Your task to perform on an android device: install app "Nova Launcher" Image 0: 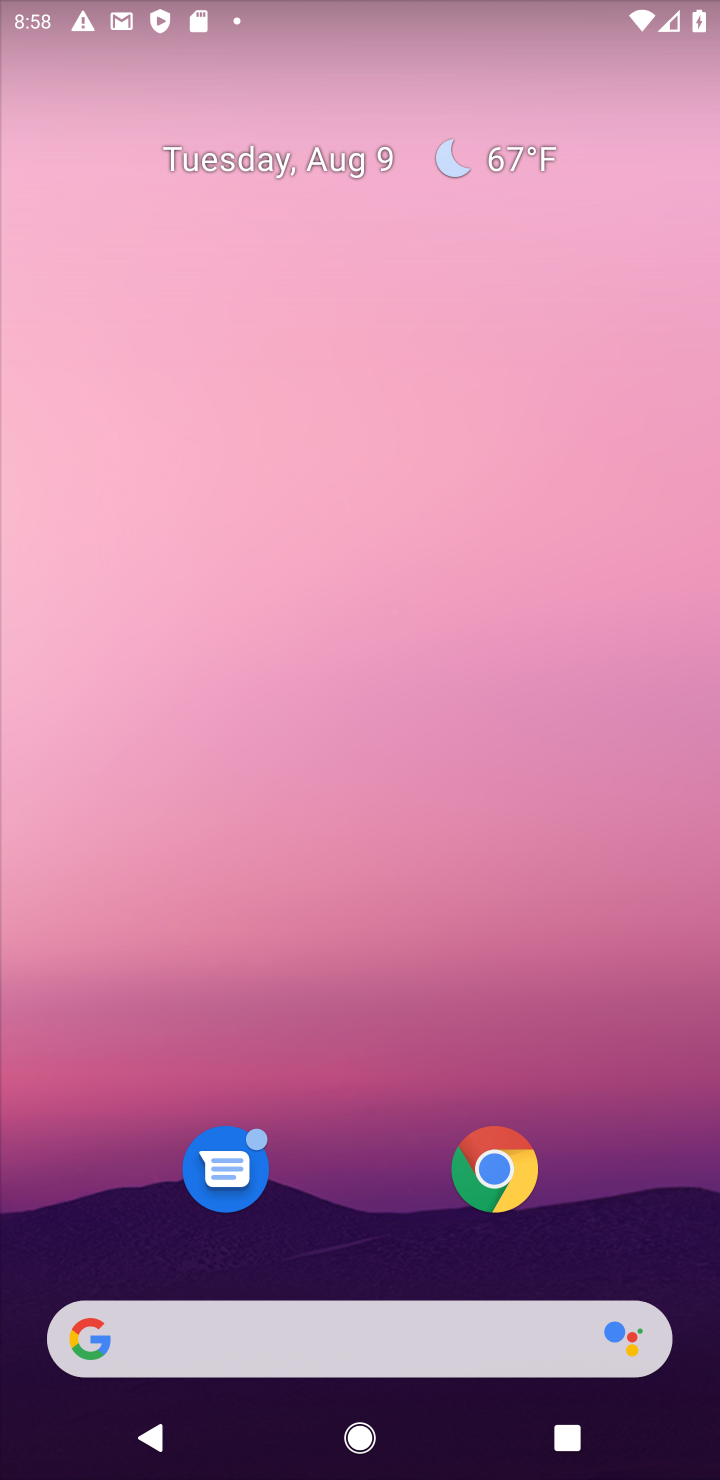
Step 0: drag from (397, 806) to (712, 861)
Your task to perform on an android device: install app "Nova Launcher" Image 1: 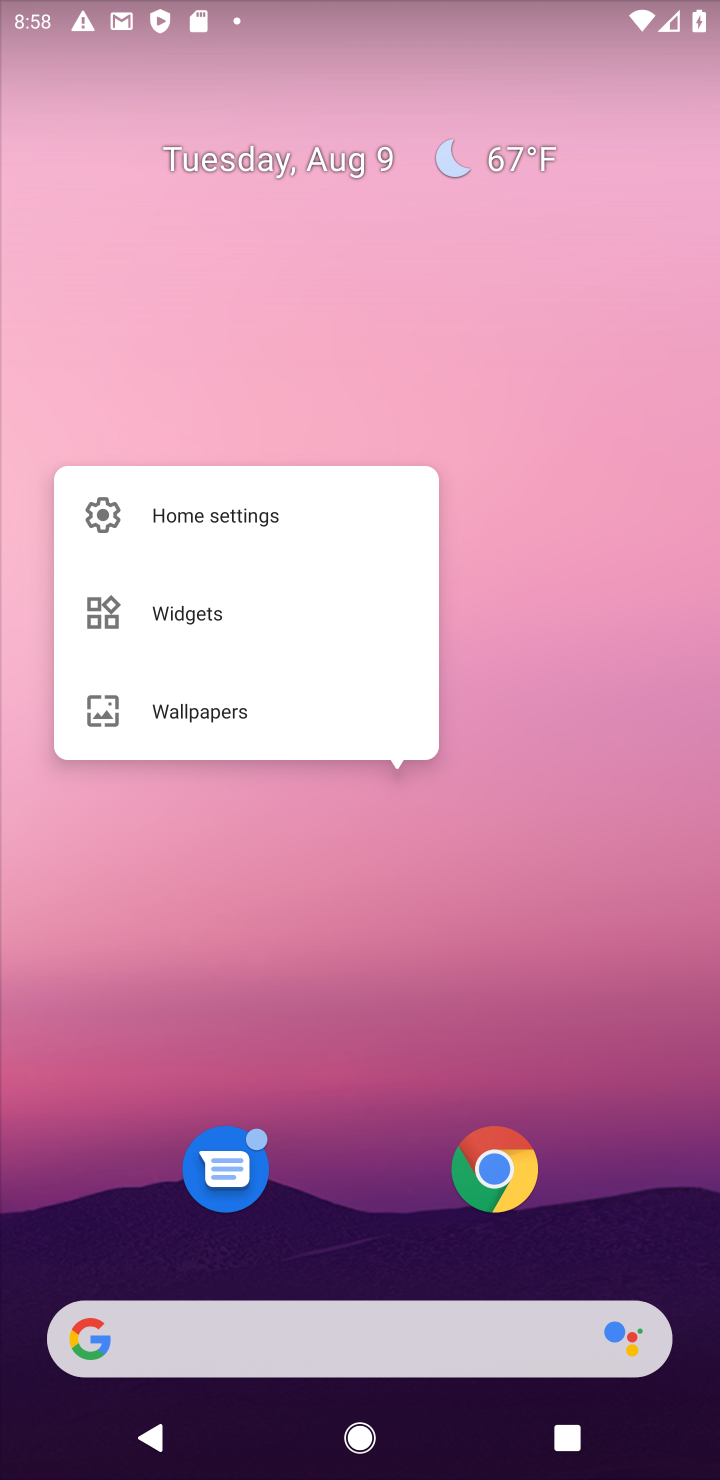
Step 1: click (623, 885)
Your task to perform on an android device: install app "Nova Launcher" Image 2: 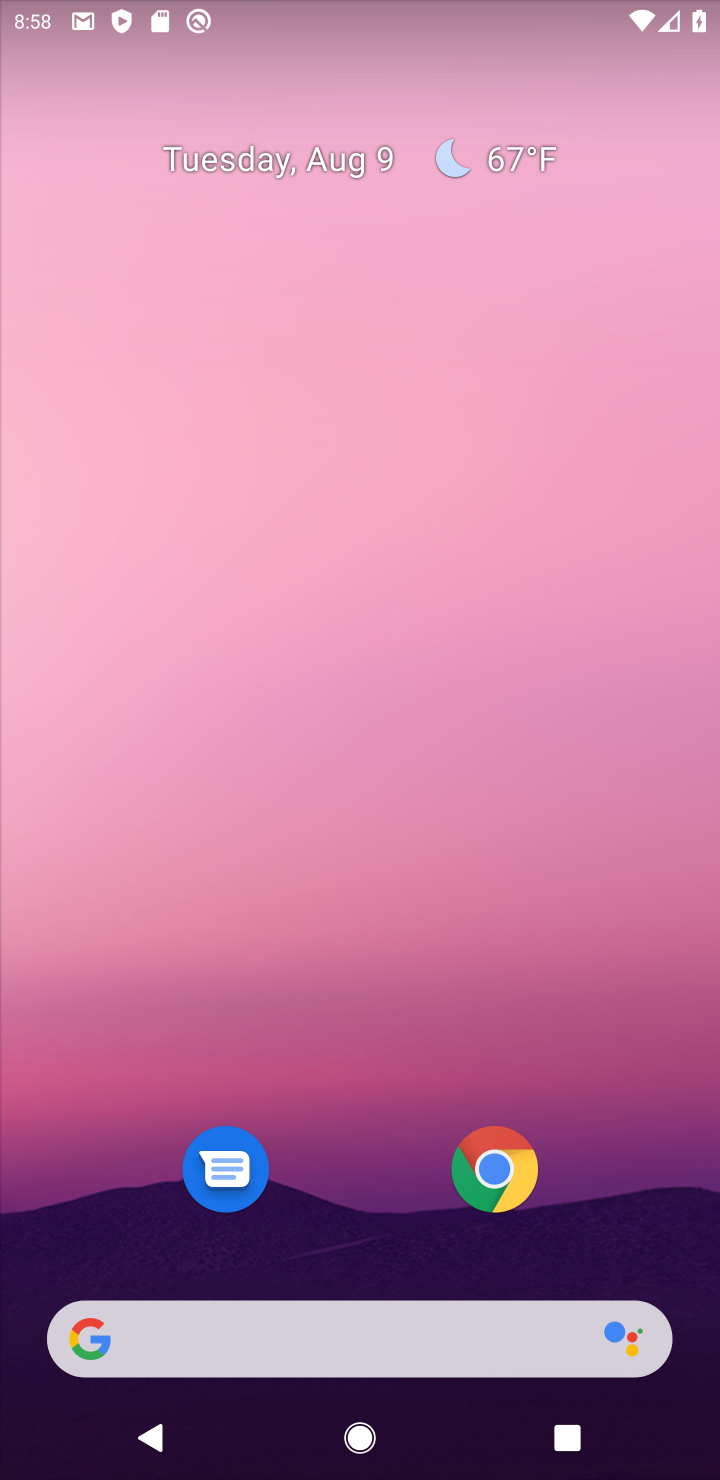
Step 2: drag from (600, 1164) to (572, 134)
Your task to perform on an android device: install app "Nova Launcher" Image 3: 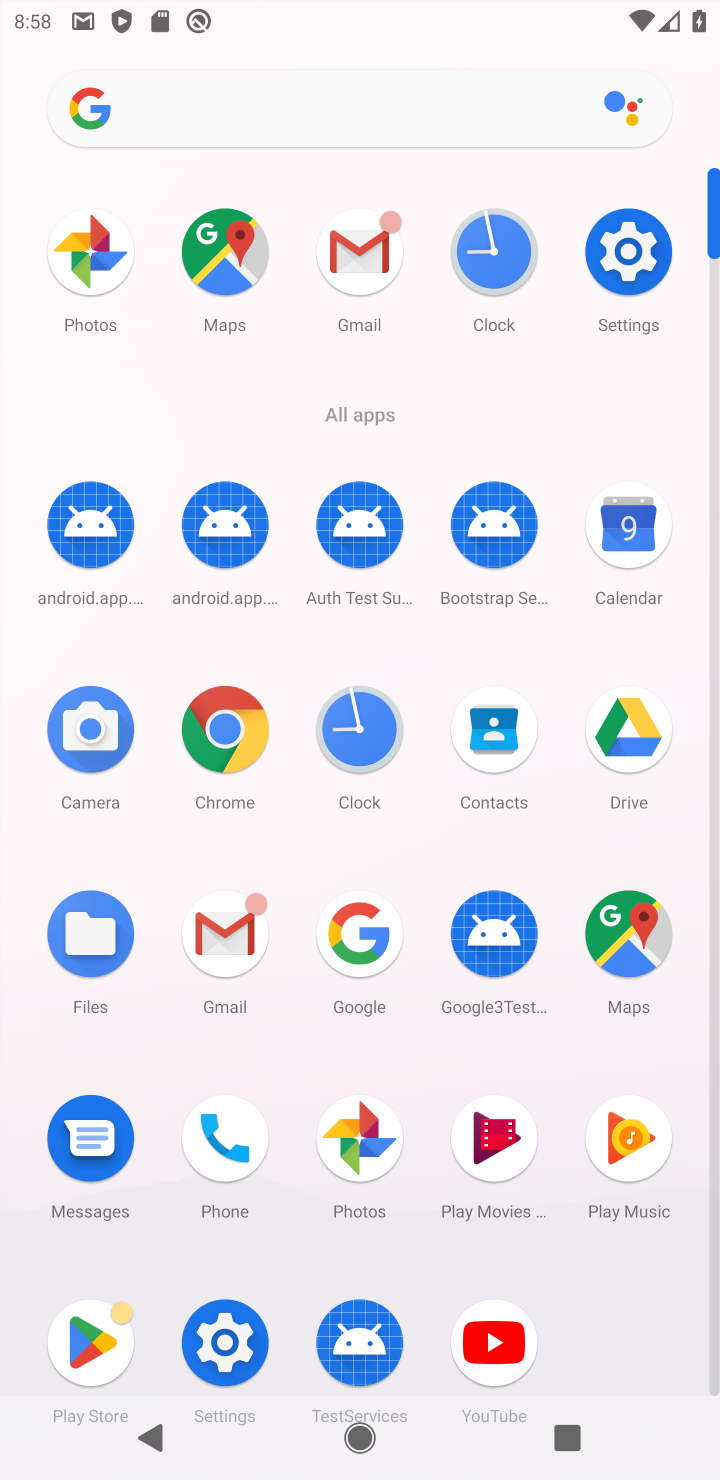
Step 3: click (92, 1350)
Your task to perform on an android device: install app "Nova Launcher" Image 4: 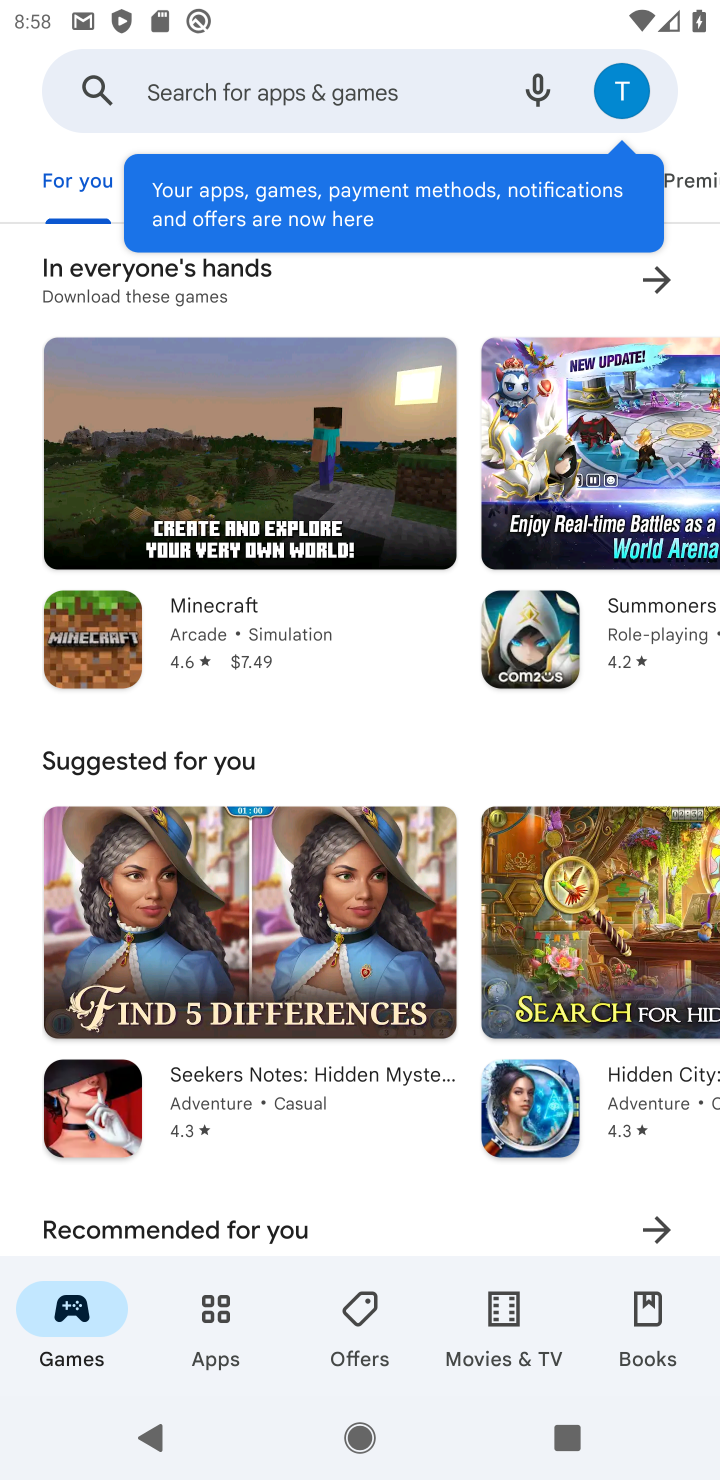
Step 4: click (348, 92)
Your task to perform on an android device: install app "Nova Launcher" Image 5: 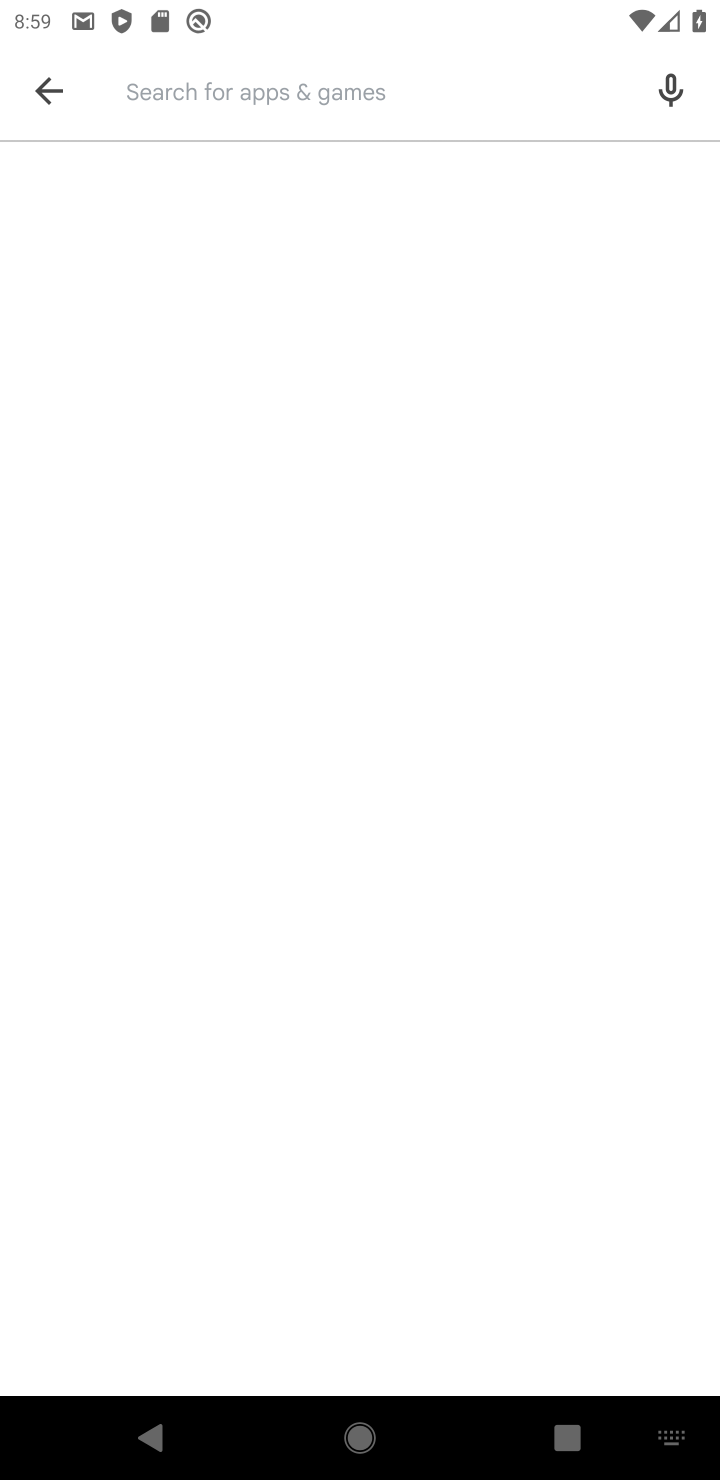
Step 5: type "nova launcher"
Your task to perform on an android device: install app "Nova Launcher" Image 6: 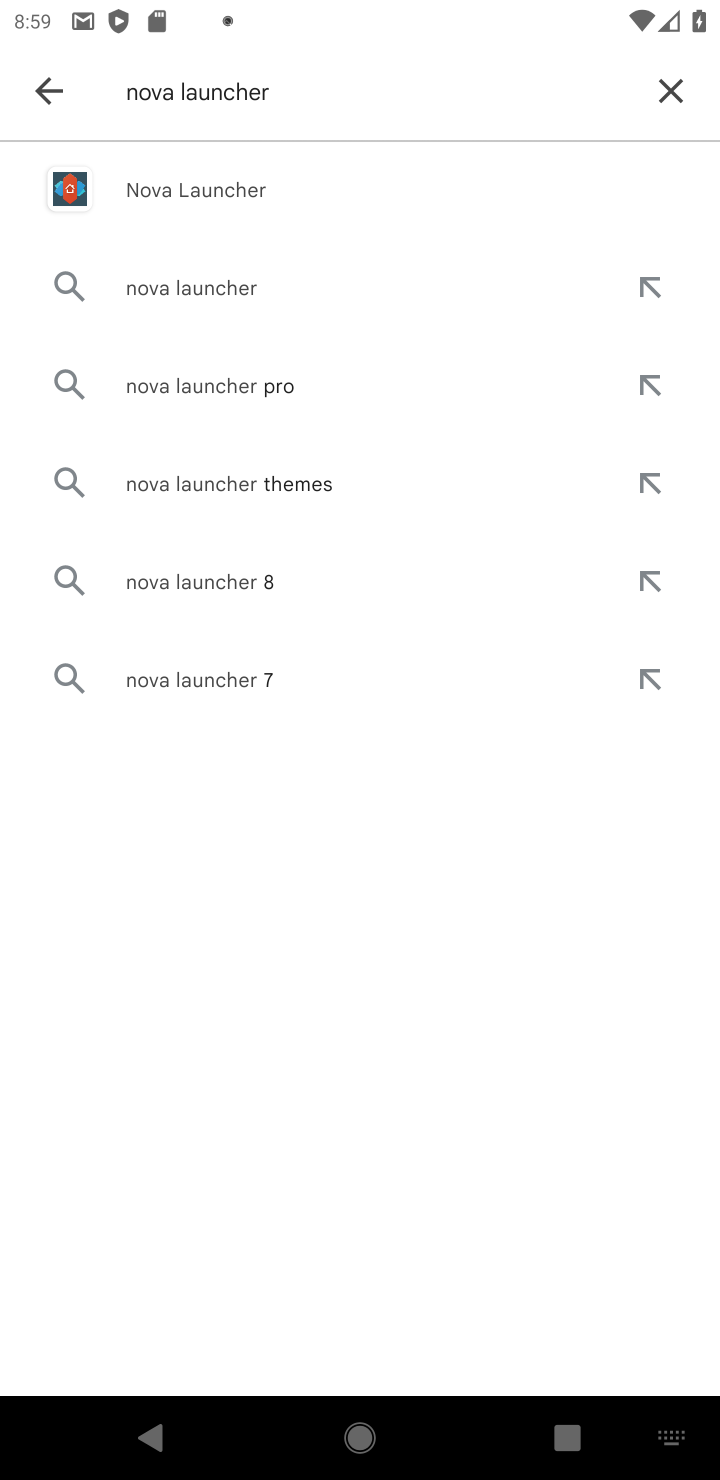
Step 6: click (254, 182)
Your task to perform on an android device: install app "Nova Launcher" Image 7: 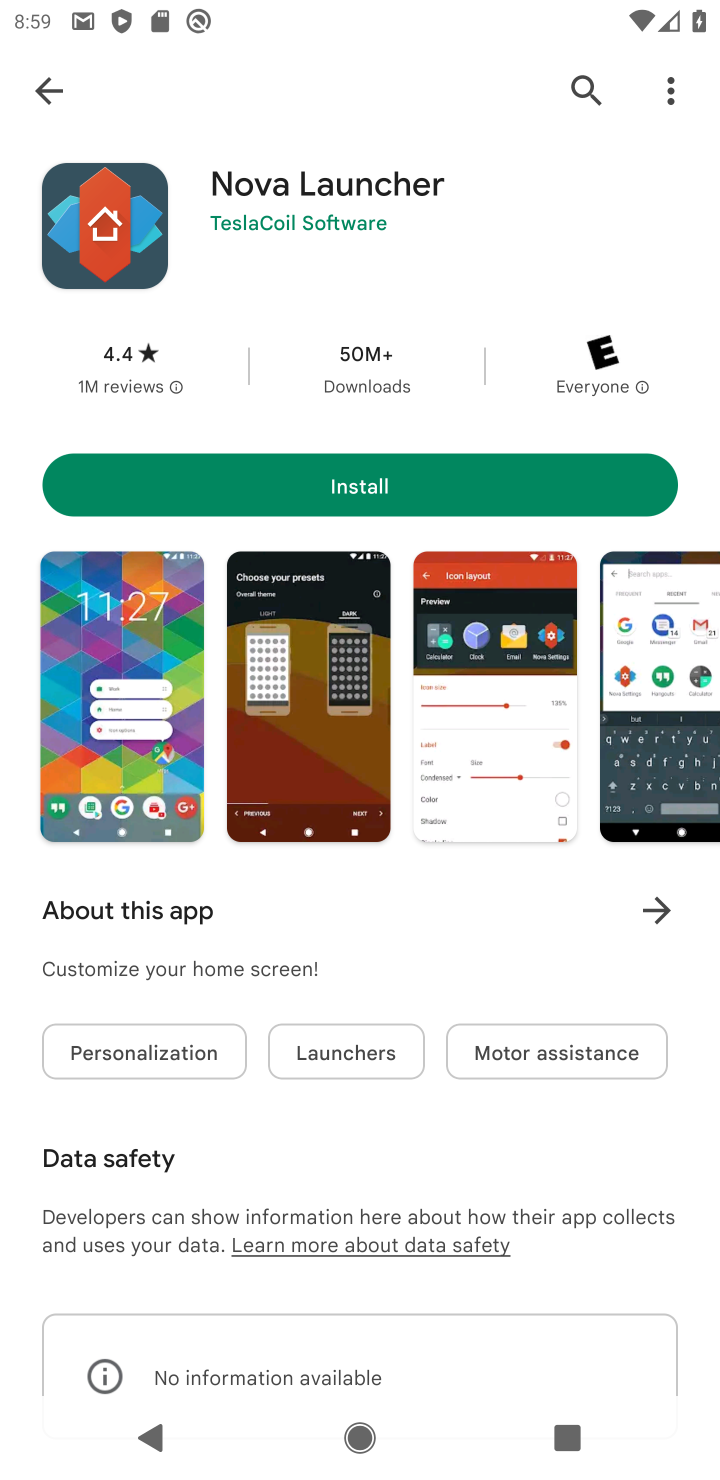
Step 7: click (443, 494)
Your task to perform on an android device: install app "Nova Launcher" Image 8: 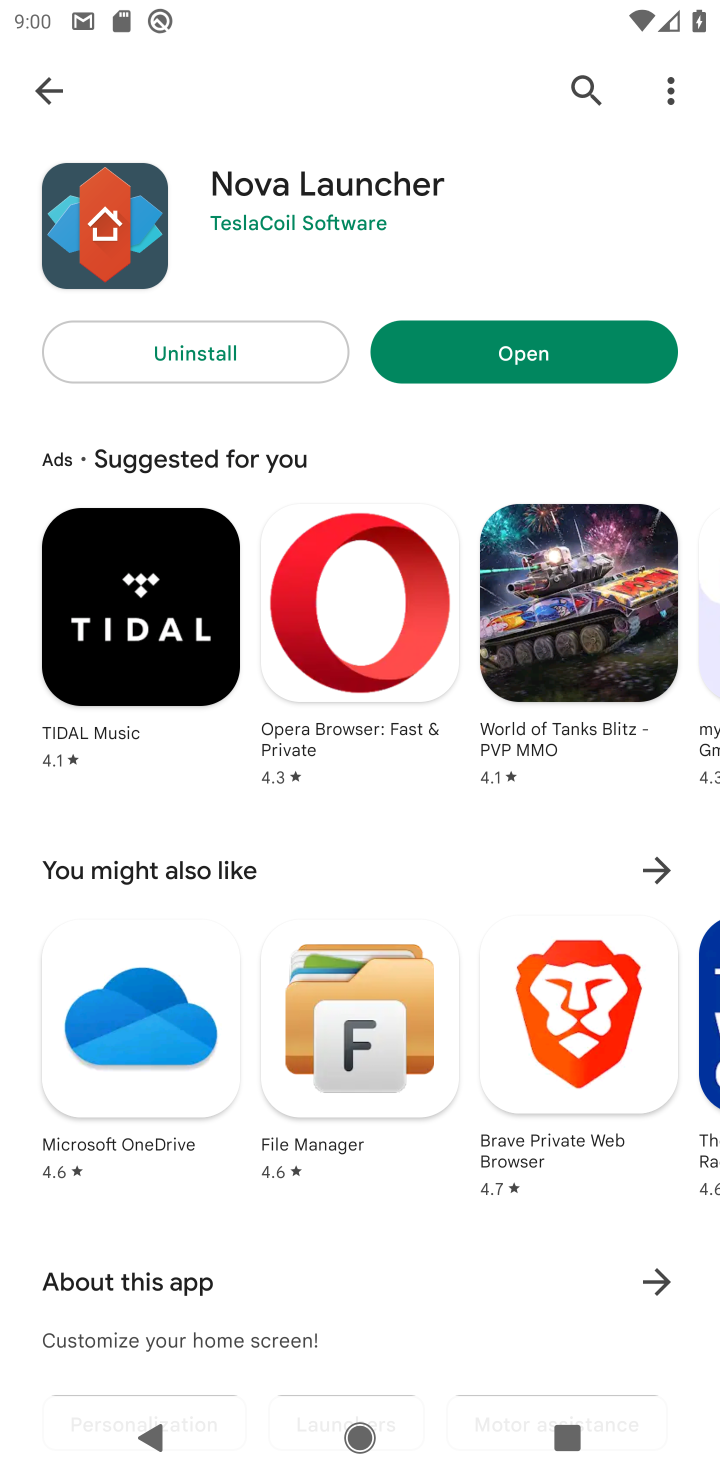
Step 8: task complete